Your task to perform on an android device: Open Google Maps and go to "Timeline" Image 0: 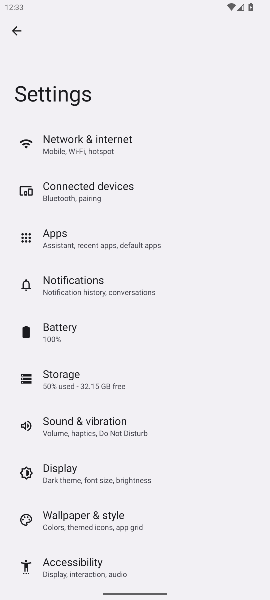
Step 0: press home button
Your task to perform on an android device: Open Google Maps and go to "Timeline" Image 1: 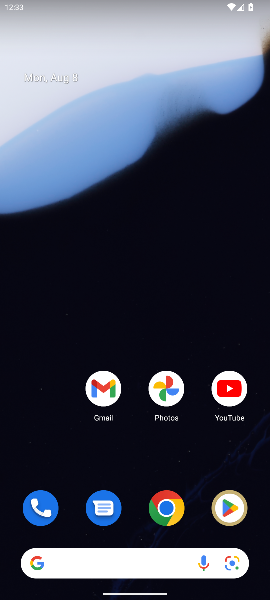
Step 1: drag from (168, 353) to (148, 33)
Your task to perform on an android device: Open Google Maps and go to "Timeline" Image 2: 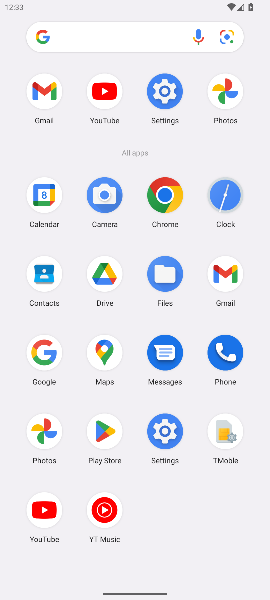
Step 2: click (110, 348)
Your task to perform on an android device: Open Google Maps and go to "Timeline" Image 3: 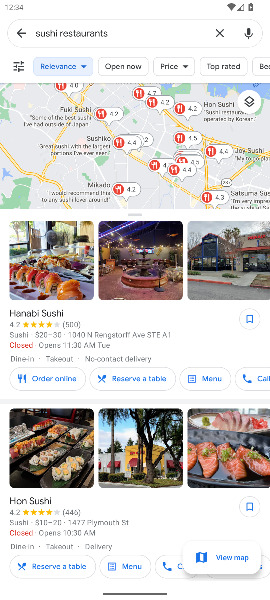
Step 3: click (20, 34)
Your task to perform on an android device: Open Google Maps and go to "Timeline" Image 4: 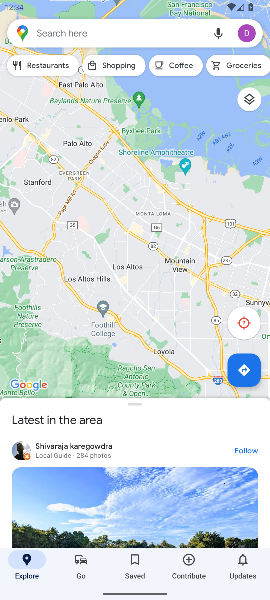
Step 4: click (22, 33)
Your task to perform on an android device: Open Google Maps and go to "Timeline" Image 5: 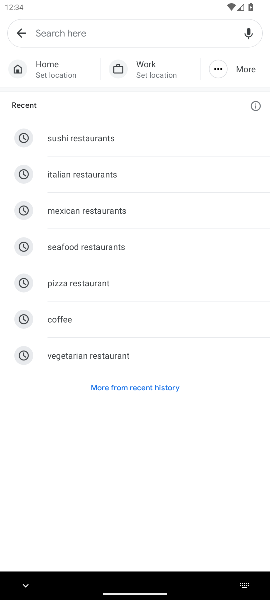
Step 5: click (21, 38)
Your task to perform on an android device: Open Google Maps and go to "Timeline" Image 6: 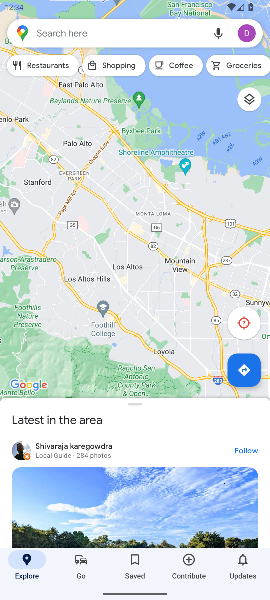
Step 6: click (245, 27)
Your task to perform on an android device: Open Google Maps and go to "Timeline" Image 7: 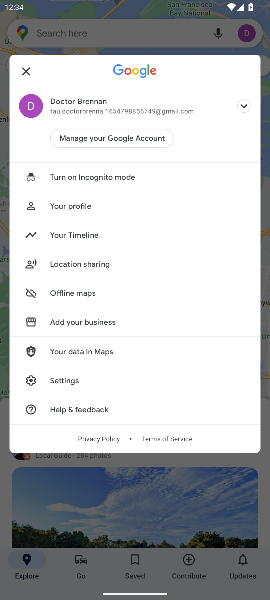
Step 7: click (87, 234)
Your task to perform on an android device: Open Google Maps and go to "Timeline" Image 8: 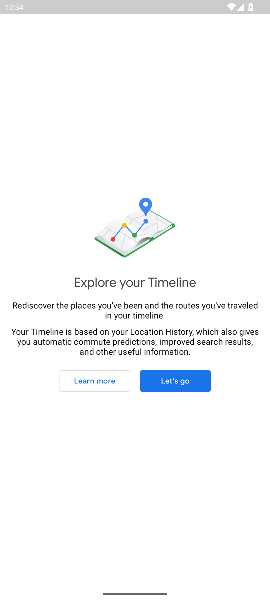
Step 8: click (172, 377)
Your task to perform on an android device: Open Google Maps and go to "Timeline" Image 9: 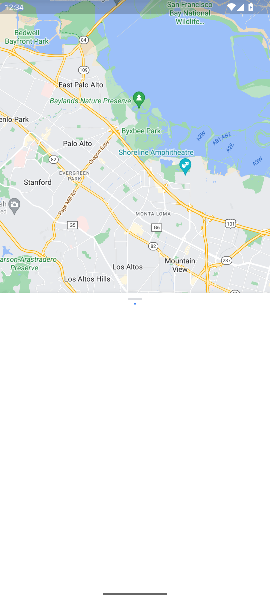
Step 9: task complete